Your task to perform on an android device: Open settings on Google Maps Image 0: 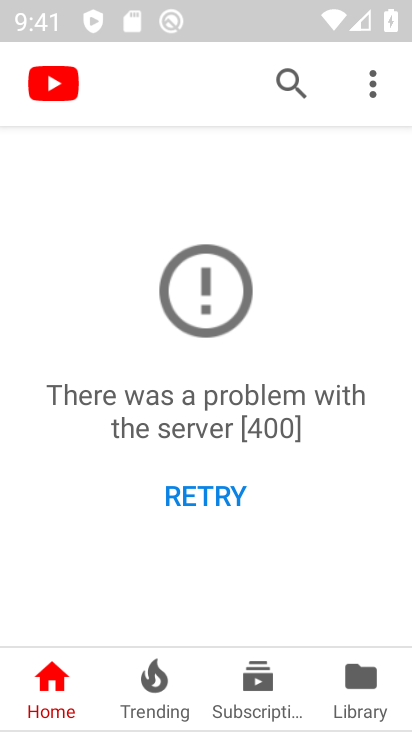
Step 0: press home button
Your task to perform on an android device: Open settings on Google Maps Image 1: 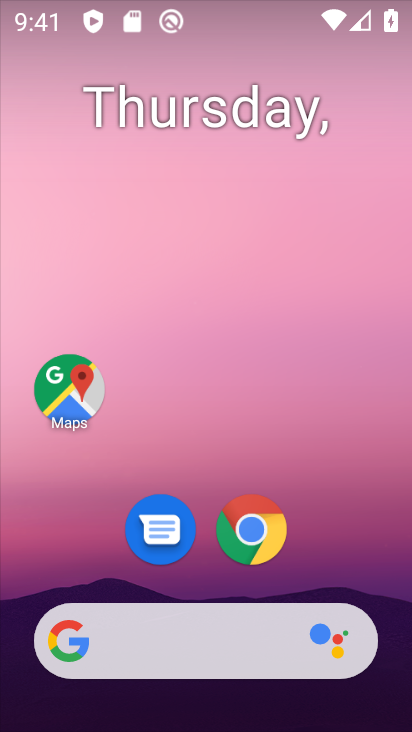
Step 1: drag from (326, 586) to (311, 5)
Your task to perform on an android device: Open settings on Google Maps Image 2: 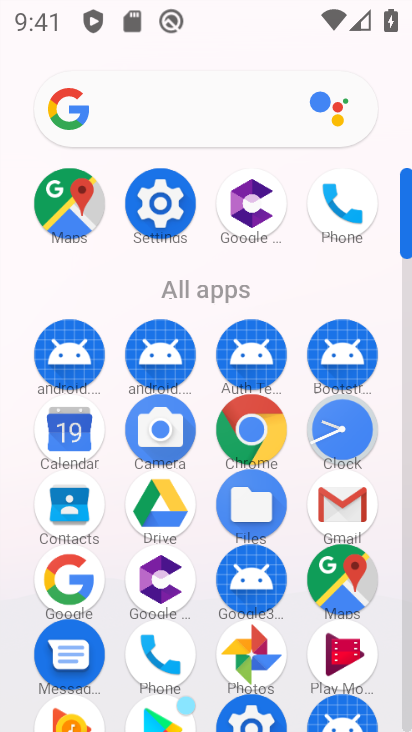
Step 2: click (339, 569)
Your task to perform on an android device: Open settings on Google Maps Image 3: 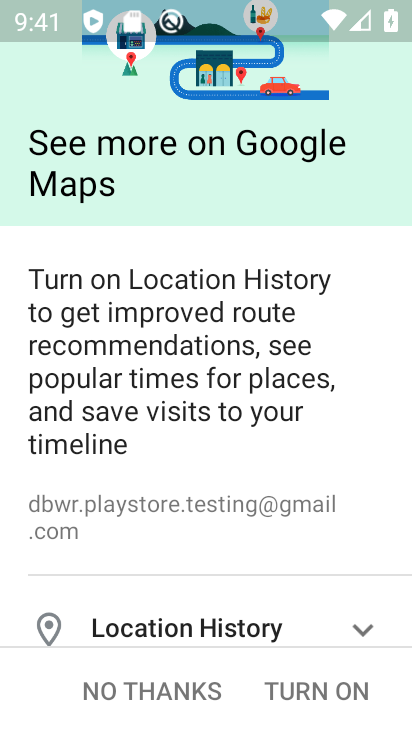
Step 3: click (180, 685)
Your task to perform on an android device: Open settings on Google Maps Image 4: 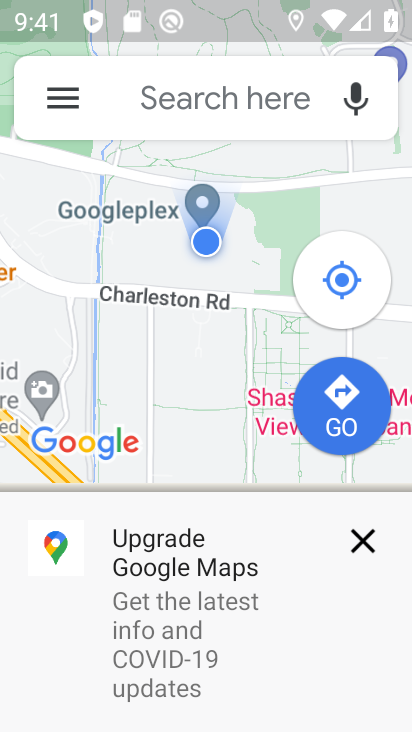
Step 4: click (67, 99)
Your task to perform on an android device: Open settings on Google Maps Image 5: 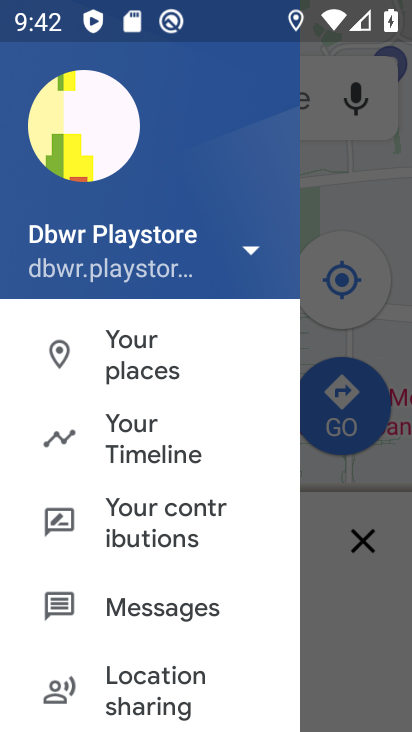
Step 5: drag from (166, 628) to (154, 286)
Your task to perform on an android device: Open settings on Google Maps Image 6: 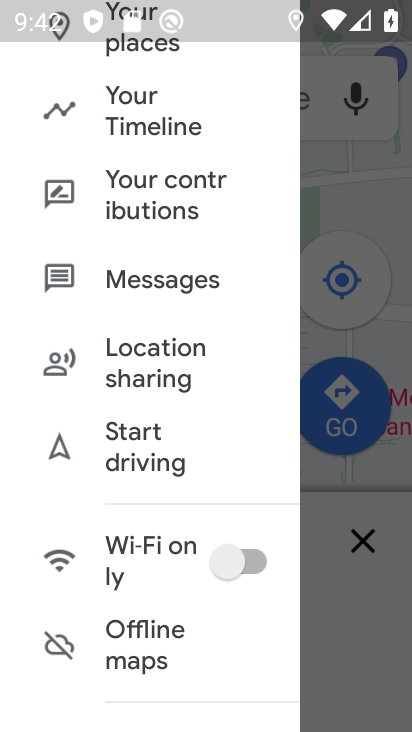
Step 6: drag from (149, 583) to (157, 285)
Your task to perform on an android device: Open settings on Google Maps Image 7: 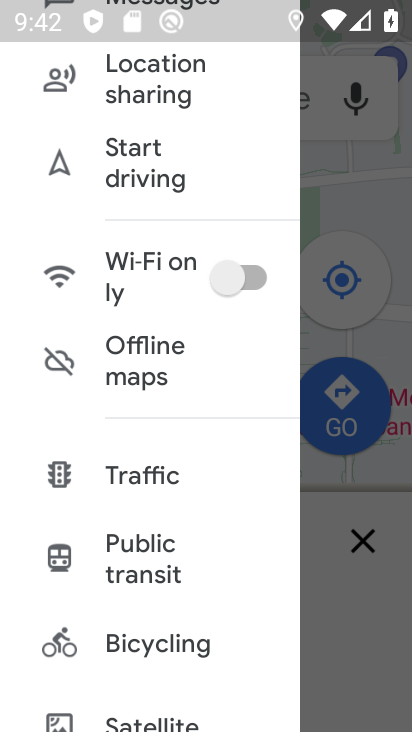
Step 7: drag from (202, 634) to (217, 322)
Your task to perform on an android device: Open settings on Google Maps Image 8: 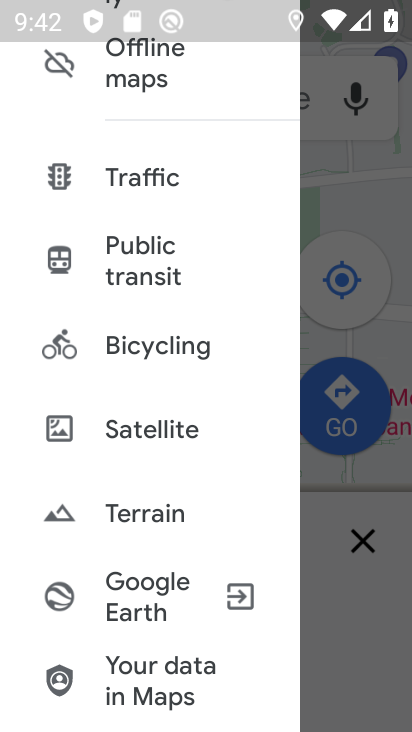
Step 8: drag from (178, 610) to (216, 350)
Your task to perform on an android device: Open settings on Google Maps Image 9: 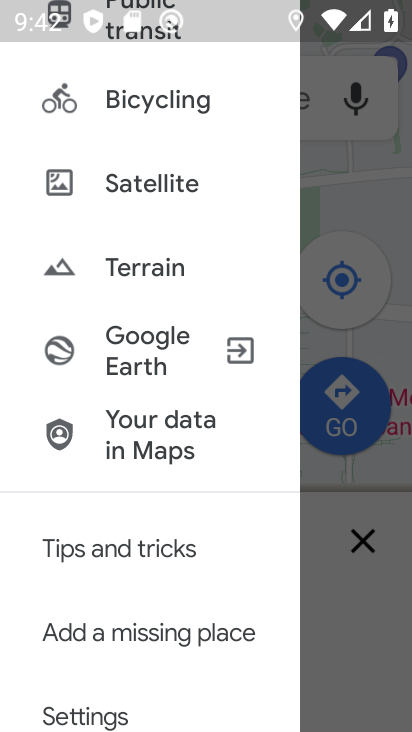
Step 9: drag from (160, 662) to (191, 496)
Your task to perform on an android device: Open settings on Google Maps Image 10: 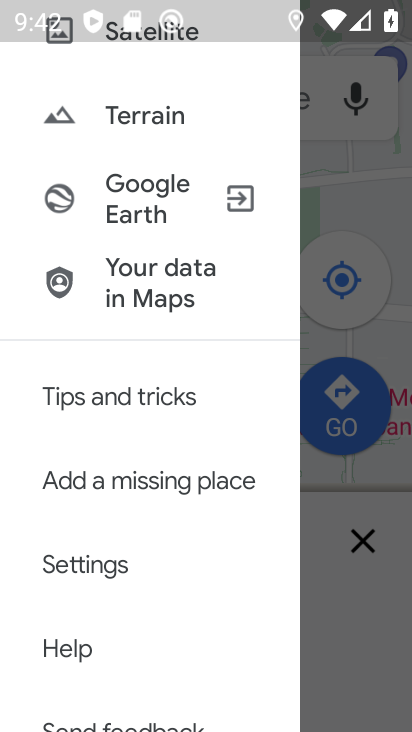
Step 10: click (119, 564)
Your task to perform on an android device: Open settings on Google Maps Image 11: 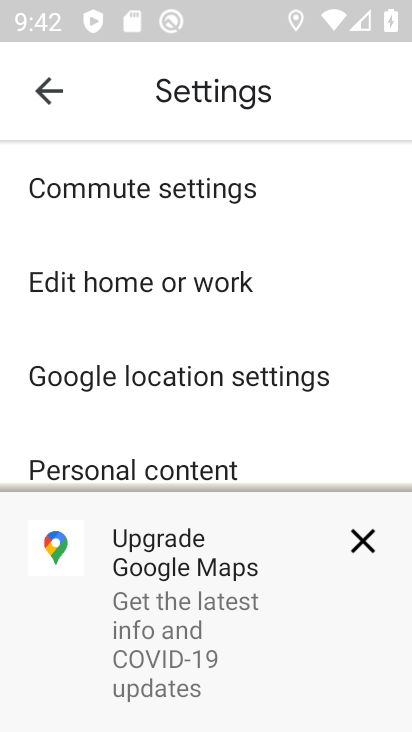
Step 11: task complete